Your task to perform on an android device: Open calendar and show me the fourth week of next month Image 0: 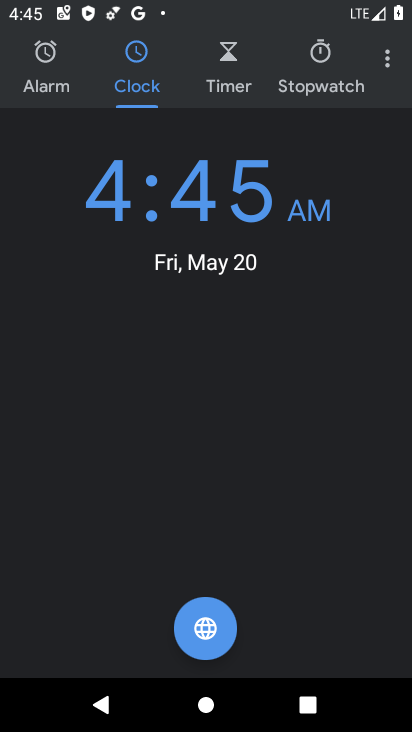
Step 0: press back button
Your task to perform on an android device: Open calendar and show me the fourth week of next month Image 1: 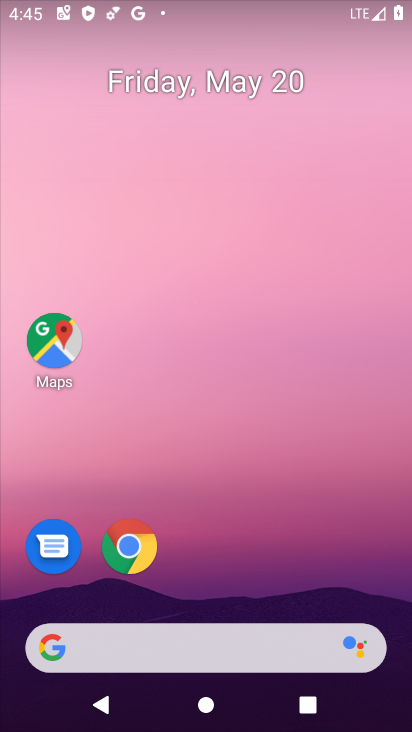
Step 1: drag from (273, 592) to (270, 105)
Your task to perform on an android device: Open calendar and show me the fourth week of next month Image 2: 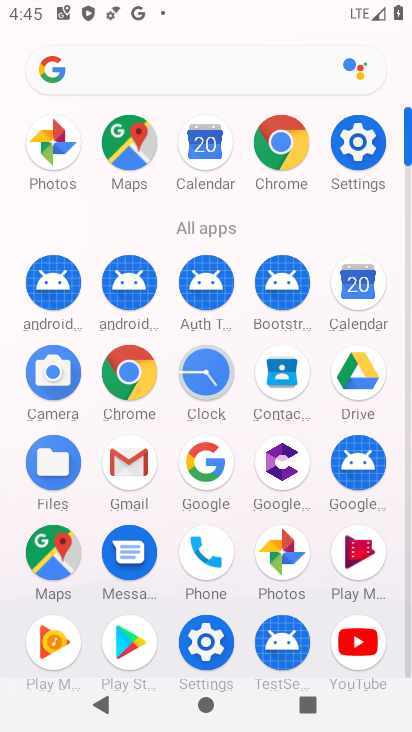
Step 2: click (203, 147)
Your task to perform on an android device: Open calendar and show me the fourth week of next month Image 3: 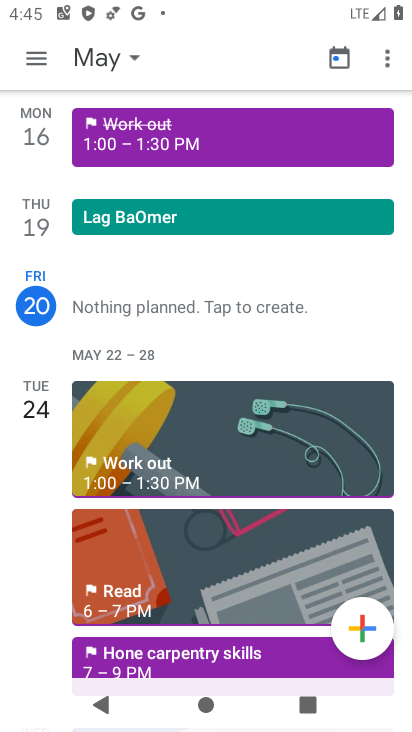
Step 3: click (343, 56)
Your task to perform on an android device: Open calendar and show me the fourth week of next month Image 4: 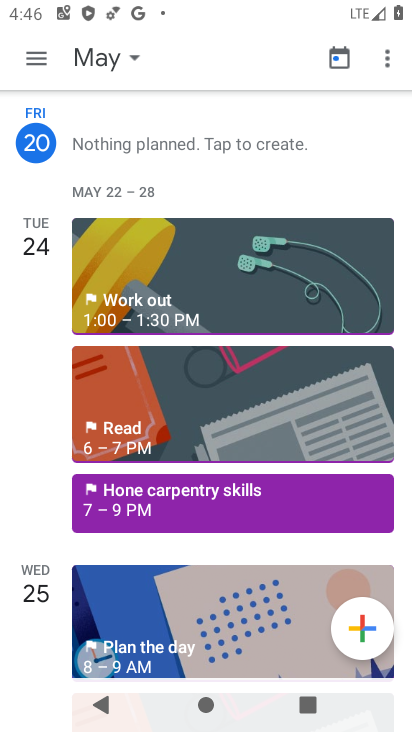
Step 4: click (131, 55)
Your task to perform on an android device: Open calendar and show me the fourth week of next month Image 5: 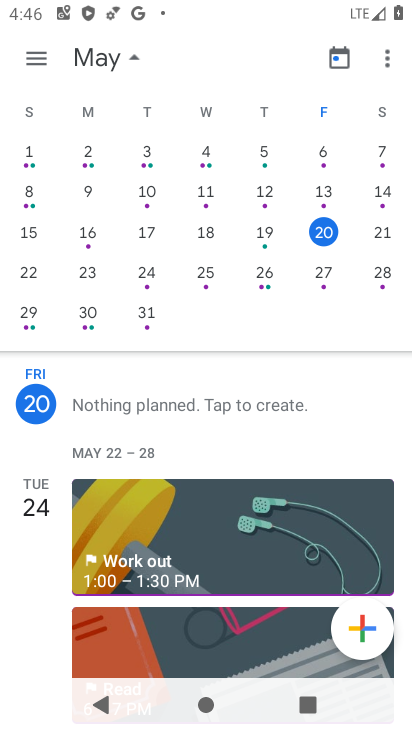
Step 5: drag from (389, 248) to (0, 200)
Your task to perform on an android device: Open calendar and show me the fourth week of next month Image 6: 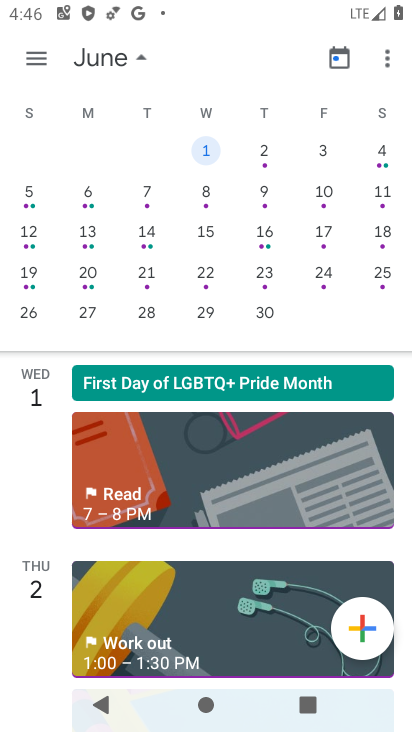
Step 6: click (87, 307)
Your task to perform on an android device: Open calendar and show me the fourth week of next month Image 7: 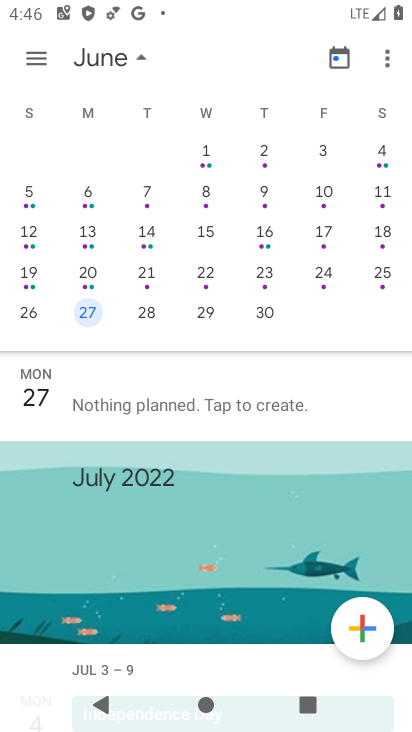
Step 7: click (35, 58)
Your task to perform on an android device: Open calendar and show me the fourth week of next month Image 8: 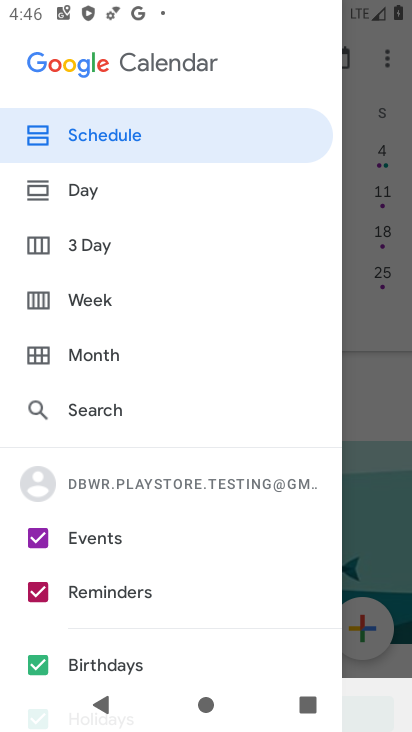
Step 8: click (82, 296)
Your task to perform on an android device: Open calendar and show me the fourth week of next month Image 9: 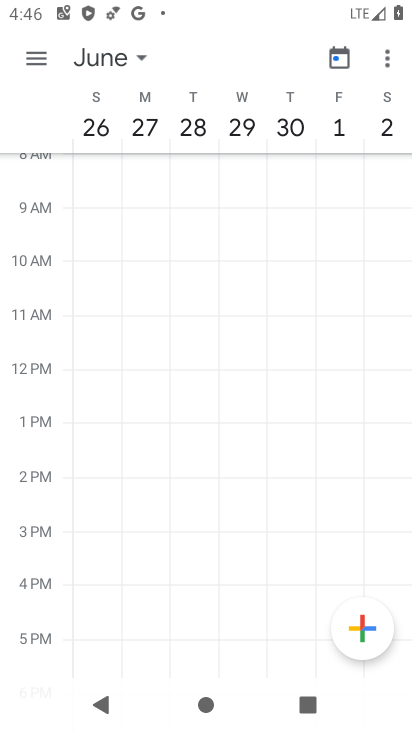
Step 9: task complete